Your task to perform on an android device: turn on showing notifications on the lock screen Image 0: 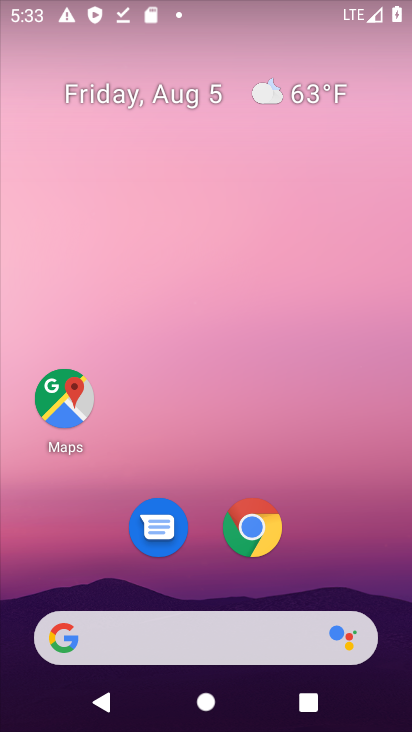
Step 0: drag from (252, 230) to (228, 468)
Your task to perform on an android device: turn on showing notifications on the lock screen Image 1: 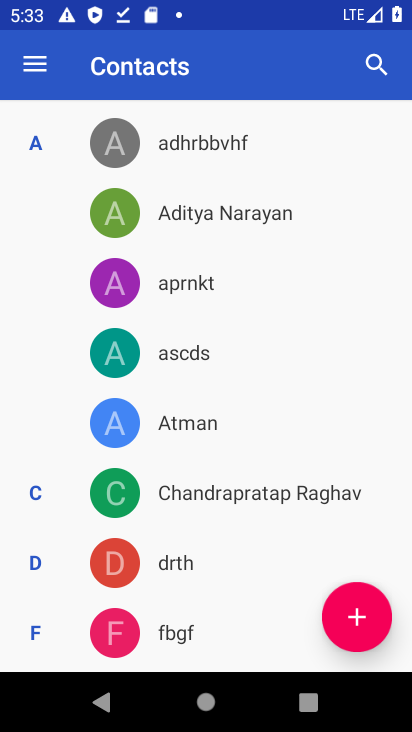
Step 1: press home button
Your task to perform on an android device: turn on showing notifications on the lock screen Image 2: 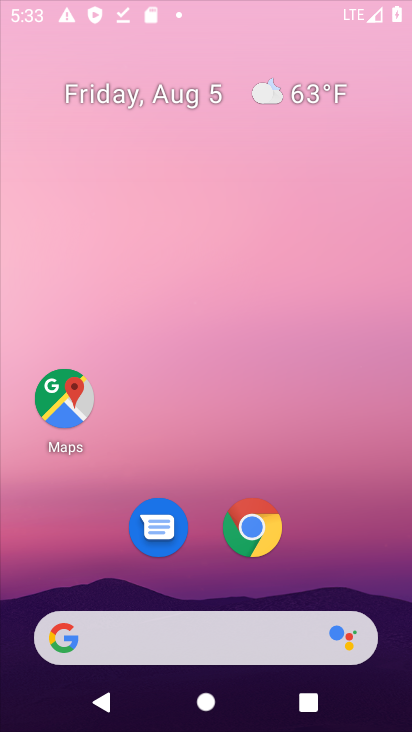
Step 2: drag from (206, 607) to (258, 135)
Your task to perform on an android device: turn on showing notifications on the lock screen Image 3: 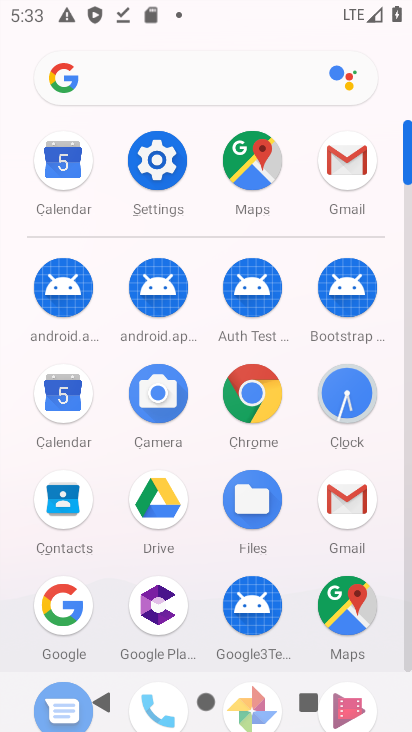
Step 3: click (163, 164)
Your task to perform on an android device: turn on showing notifications on the lock screen Image 4: 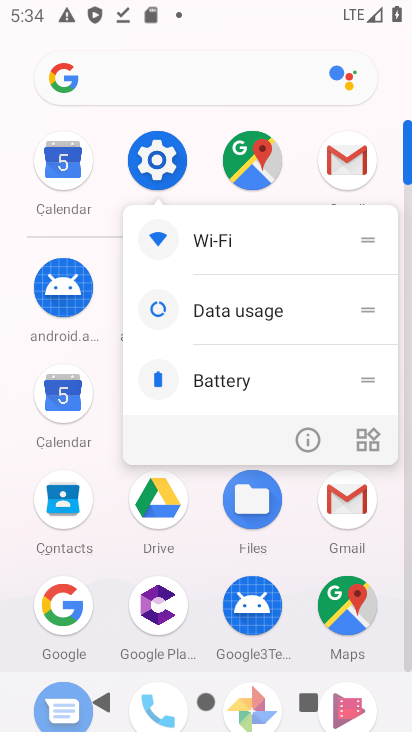
Step 4: click (323, 444)
Your task to perform on an android device: turn on showing notifications on the lock screen Image 5: 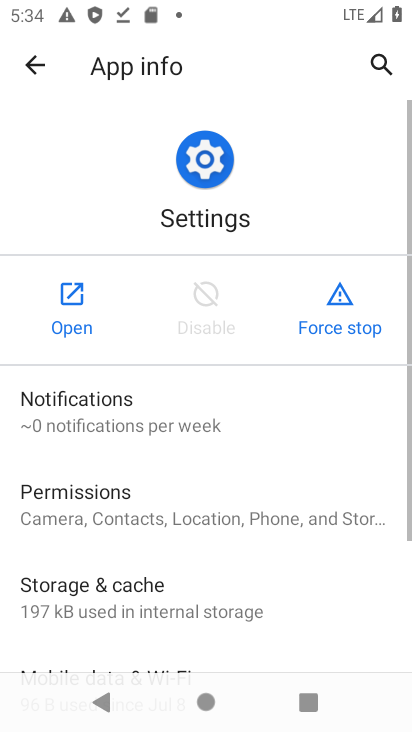
Step 5: click (65, 295)
Your task to perform on an android device: turn on showing notifications on the lock screen Image 6: 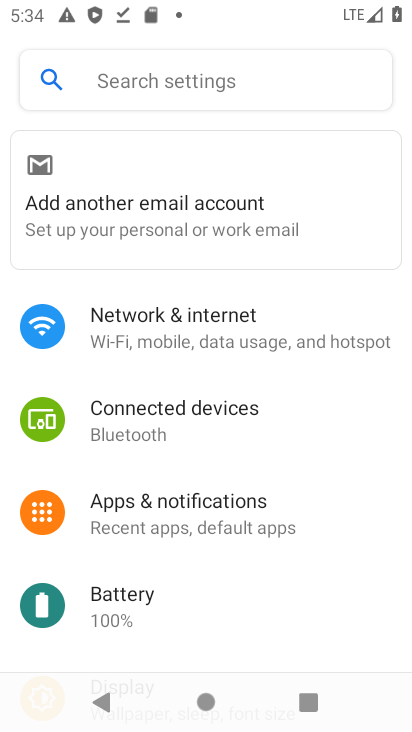
Step 6: drag from (212, 584) to (244, 201)
Your task to perform on an android device: turn on showing notifications on the lock screen Image 7: 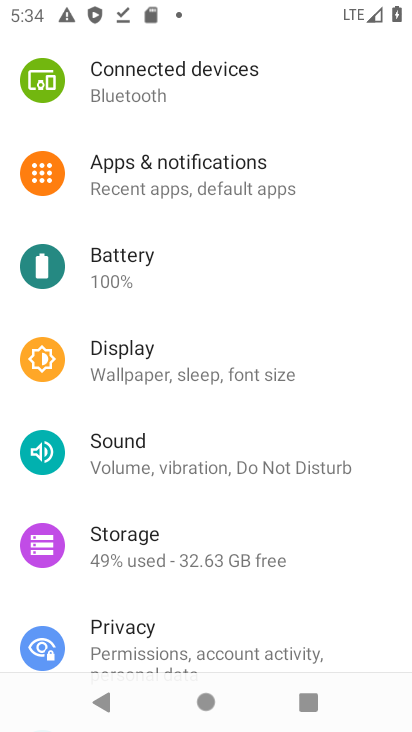
Step 7: click (207, 192)
Your task to perform on an android device: turn on showing notifications on the lock screen Image 8: 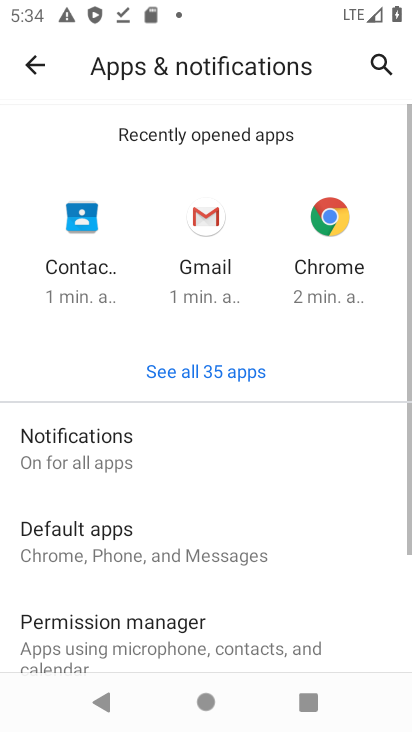
Step 8: click (66, 450)
Your task to perform on an android device: turn on showing notifications on the lock screen Image 9: 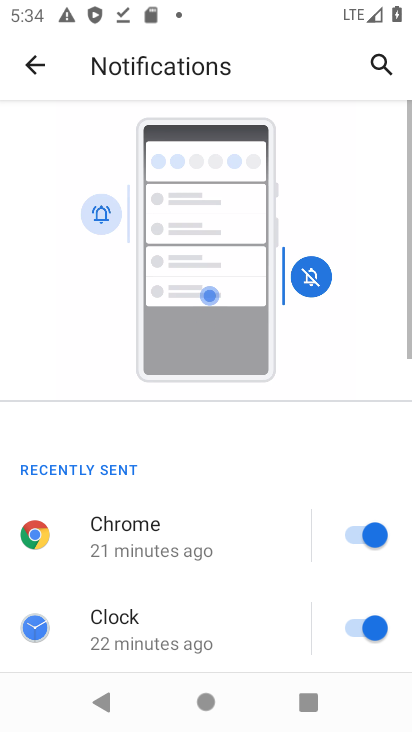
Step 9: drag from (144, 523) to (261, 157)
Your task to perform on an android device: turn on showing notifications on the lock screen Image 10: 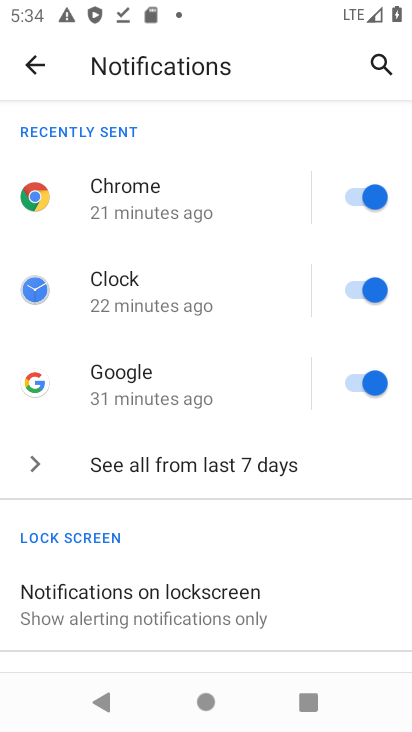
Step 10: click (128, 608)
Your task to perform on an android device: turn on showing notifications on the lock screen Image 11: 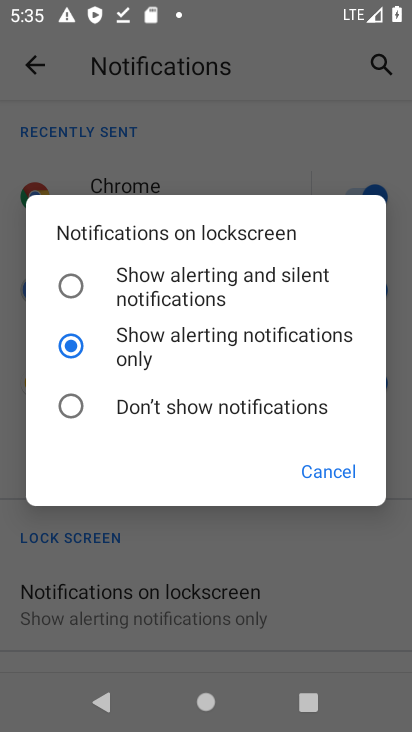
Step 11: click (112, 292)
Your task to perform on an android device: turn on showing notifications on the lock screen Image 12: 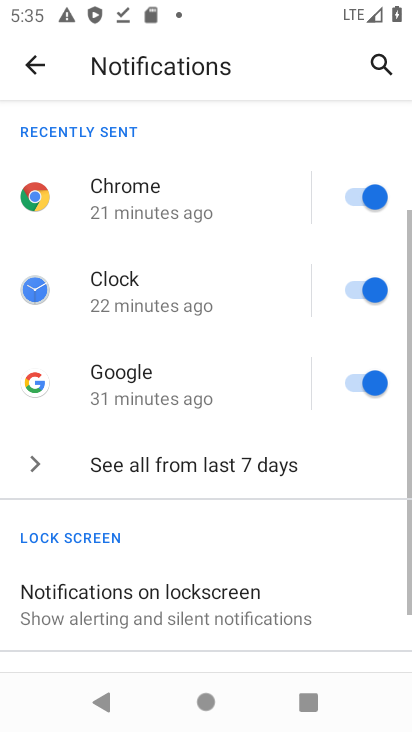
Step 12: task complete